Your task to perform on an android device: clear history in the chrome app Image 0: 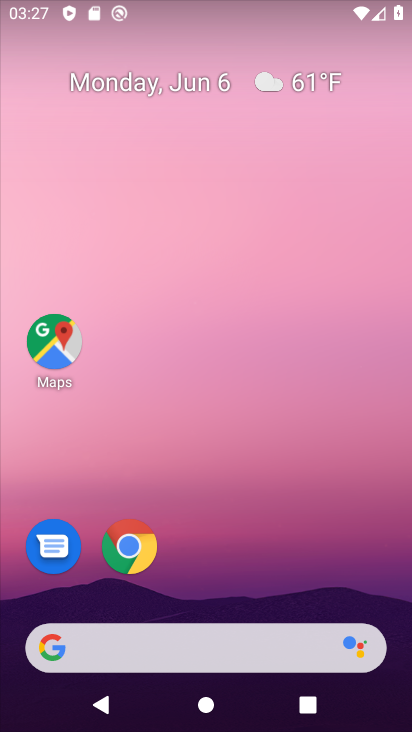
Step 0: press home button
Your task to perform on an android device: clear history in the chrome app Image 1: 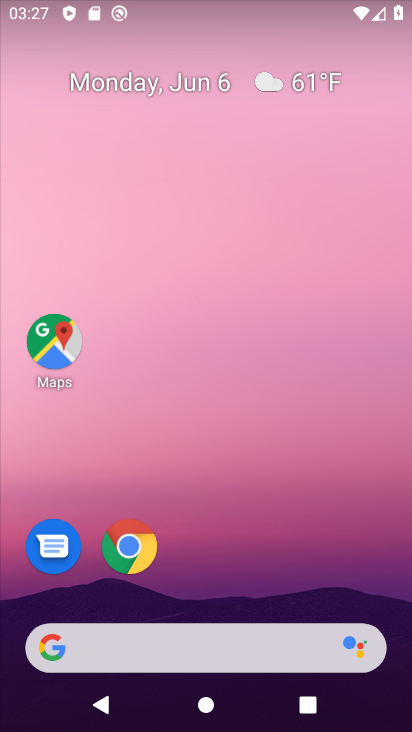
Step 1: click (128, 556)
Your task to perform on an android device: clear history in the chrome app Image 2: 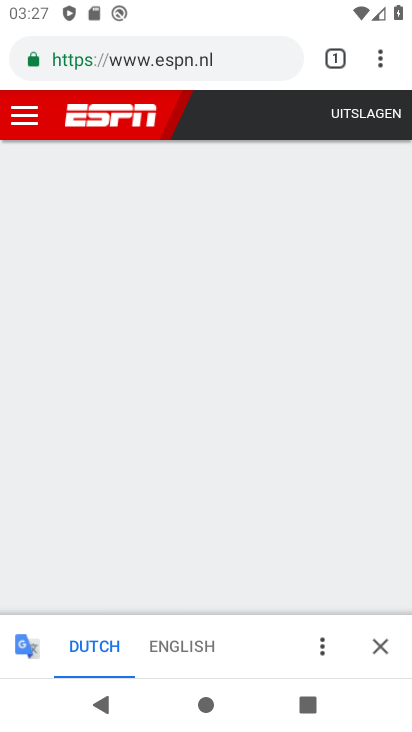
Step 2: drag from (386, 60) to (158, 405)
Your task to perform on an android device: clear history in the chrome app Image 3: 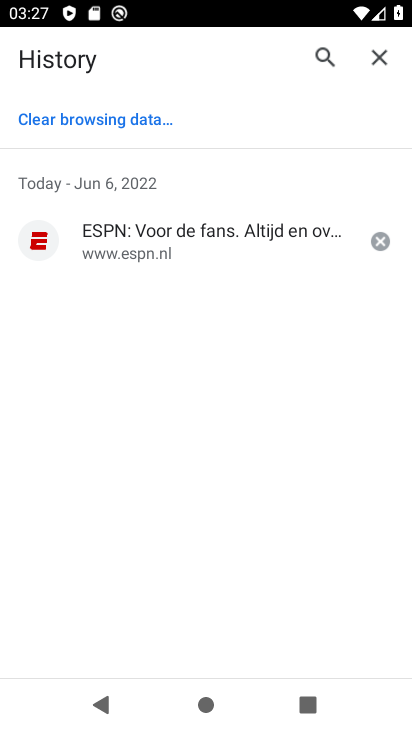
Step 3: click (96, 121)
Your task to perform on an android device: clear history in the chrome app Image 4: 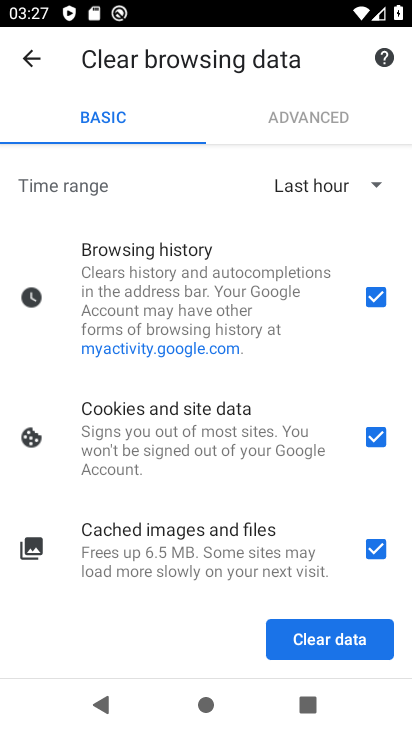
Step 4: click (309, 642)
Your task to perform on an android device: clear history in the chrome app Image 5: 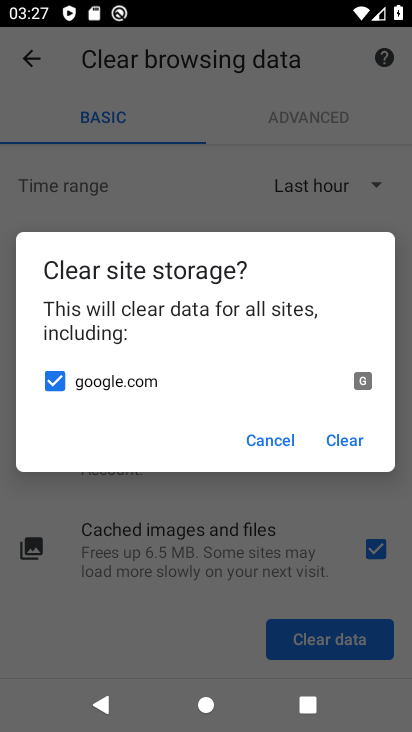
Step 5: click (343, 436)
Your task to perform on an android device: clear history in the chrome app Image 6: 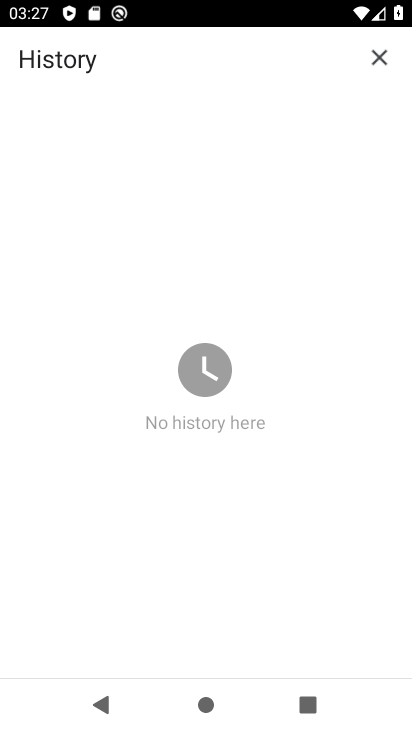
Step 6: task complete